Your task to perform on an android device: Search for "alienware aurora" on newegg.com, select the first entry, and add it to the cart. Image 0: 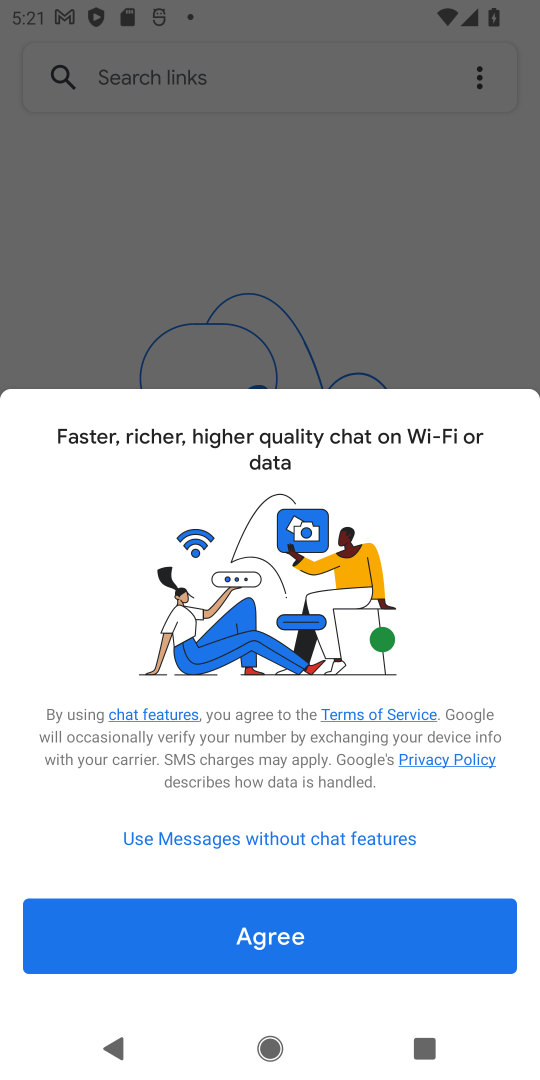
Step 0: press home button
Your task to perform on an android device: Search for "alienware aurora" on newegg.com, select the first entry, and add it to the cart. Image 1: 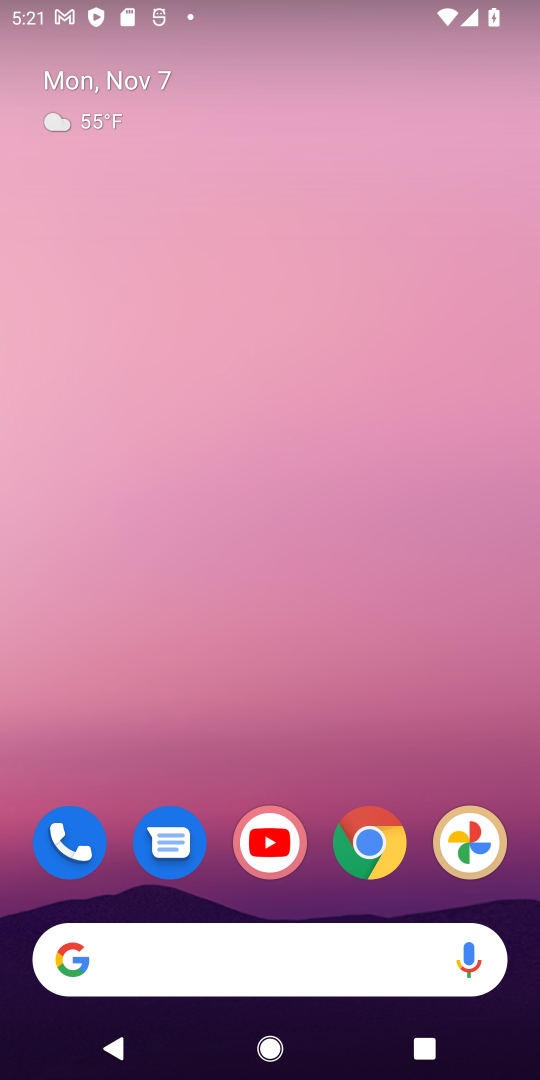
Step 1: click (355, 836)
Your task to perform on an android device: Search for "alienware aurora" on newegg.com, select the first entry, and add it to the cart. Image 2: 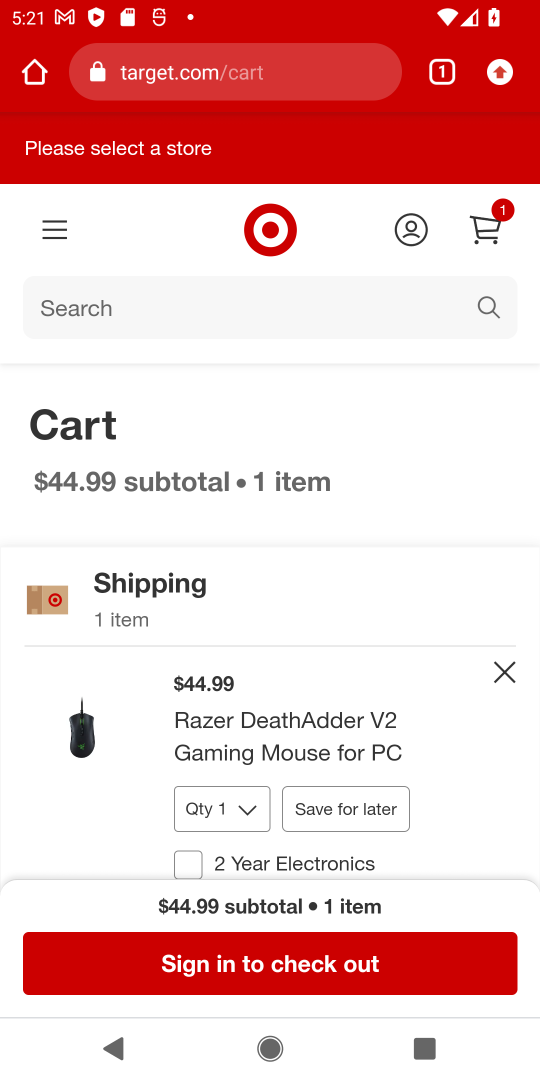
Step 2: click (253, 64)
Your task to perform on an android device: Search for "alienware aurora" on newegg.com, select the first entry, and add it to the cart. Image 3: 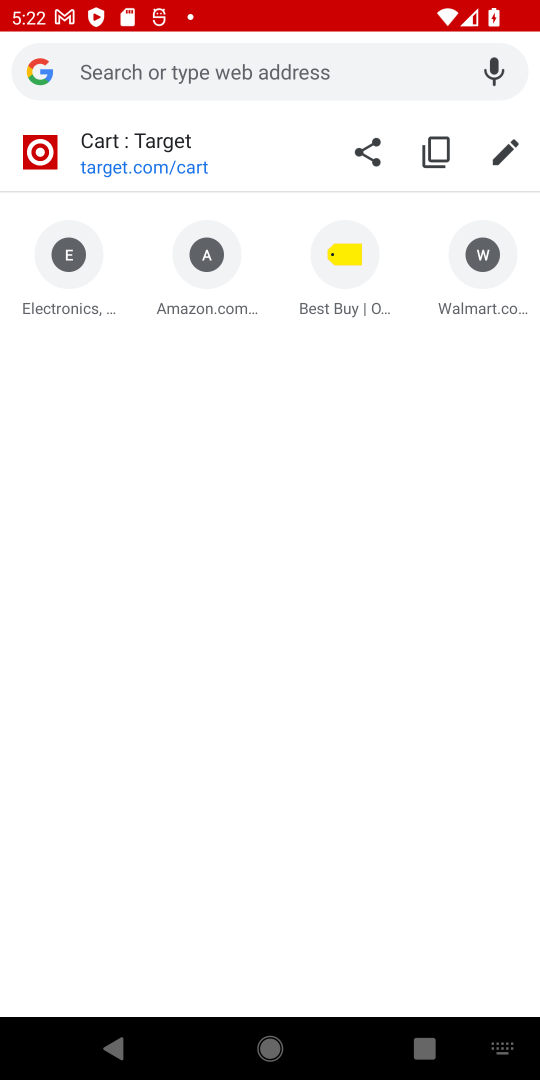
Step 3: type " newegg.com"
Your task to perform on an android device: Search for "alienware aurora" on newegg.com, select the first entry, and add it to the cart. Image 4: 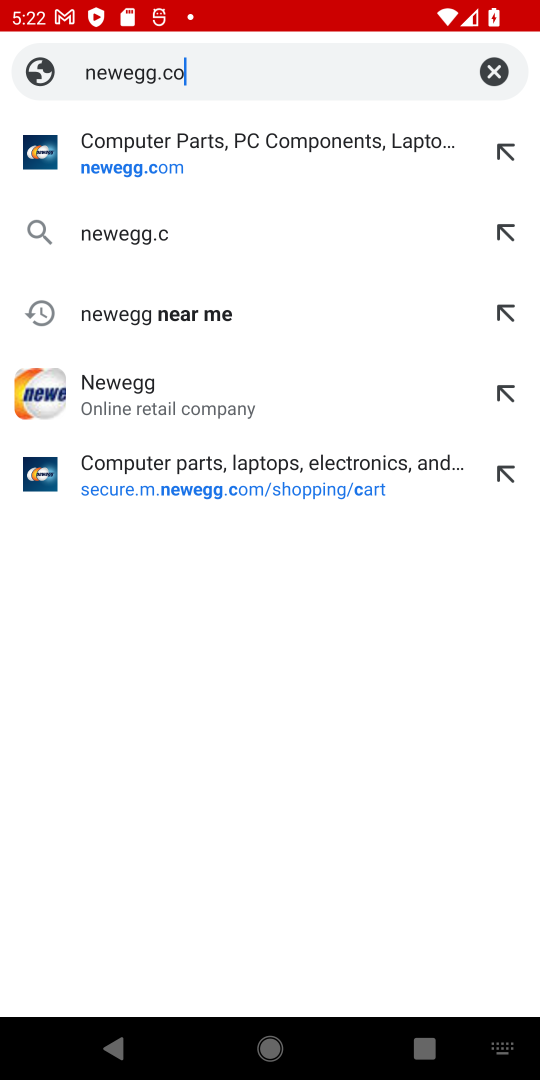
Step 4: press enter
Your task to perform on an android device: Search for "alienware aurora" on newegg.com, select the first entry, and add it to the cart. Image 5: 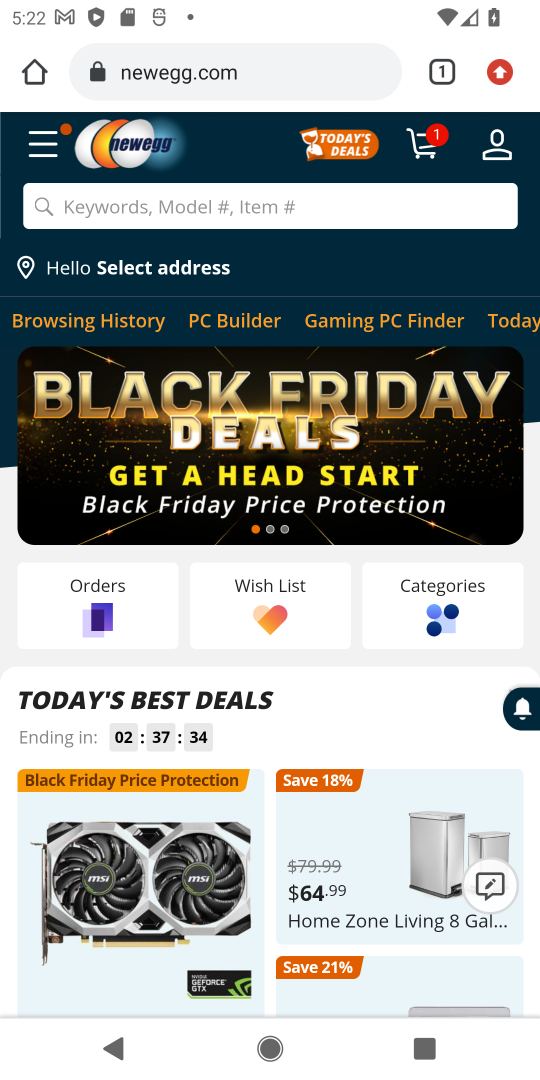
Step 5: click (174, 189)
Your task to perform on an android device: Search for "alienware aurora" on newegg.com, select the first entry, and add it to the cart. Image 6: 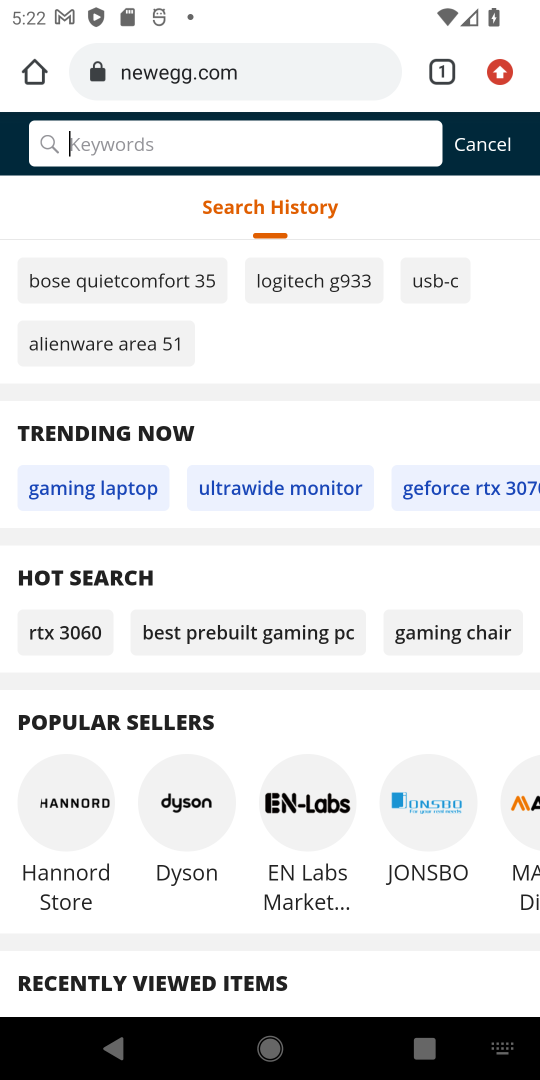
Step 6: type "alienware aurora"
Your task to perform on an android device: Search for "alienware aurora" on newegg.com, select the first entry, and add it to the cart. Image 7: 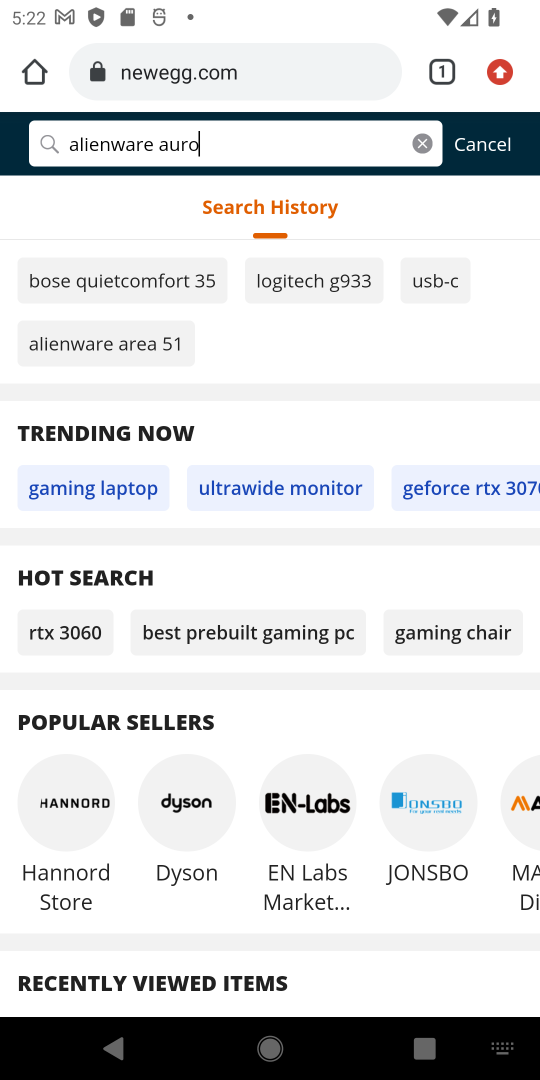
Step 7: press enter
Your task to perform on an android device: Search for "alienware aurora" on newegg.com, select the first entry, and add it to the cart. Image 8: 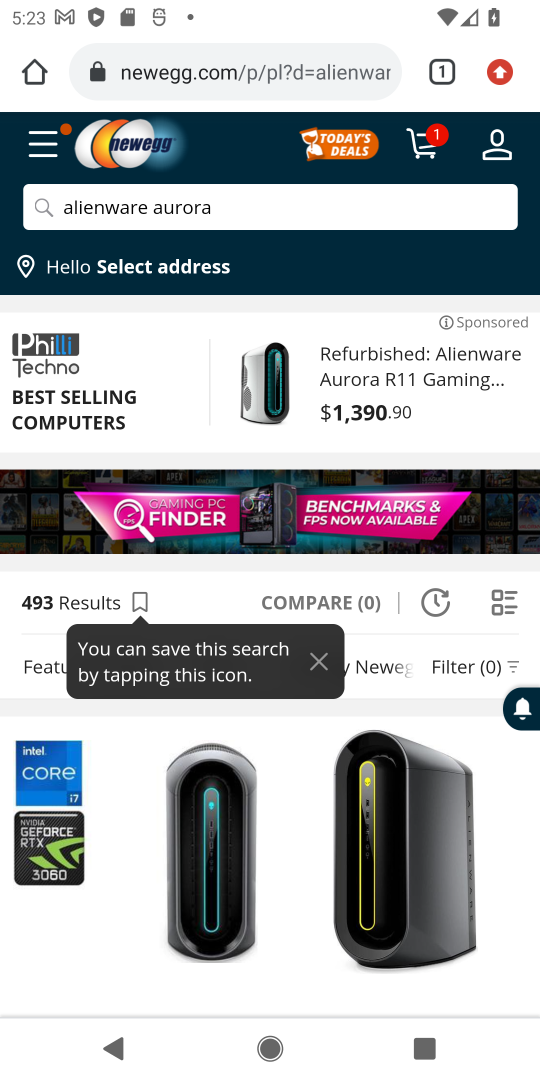
Step 8: drag from (302, 941) to (522, 352)
Your task to perform on an android device: Search for "alienware aurora" on newegg.com, select the first entry, and add it to the cart. Image 9: 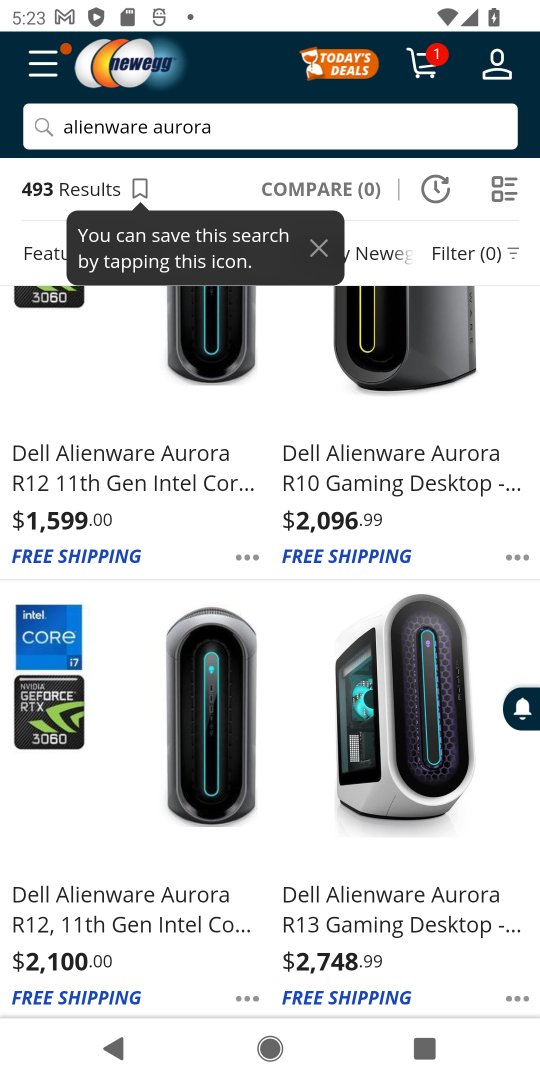
Step 9: click (121, 458)
Your task to perform on an android device: Search for "alienware aurora" on newegg.com, select the first entry, and add it to the cart. Image 10: 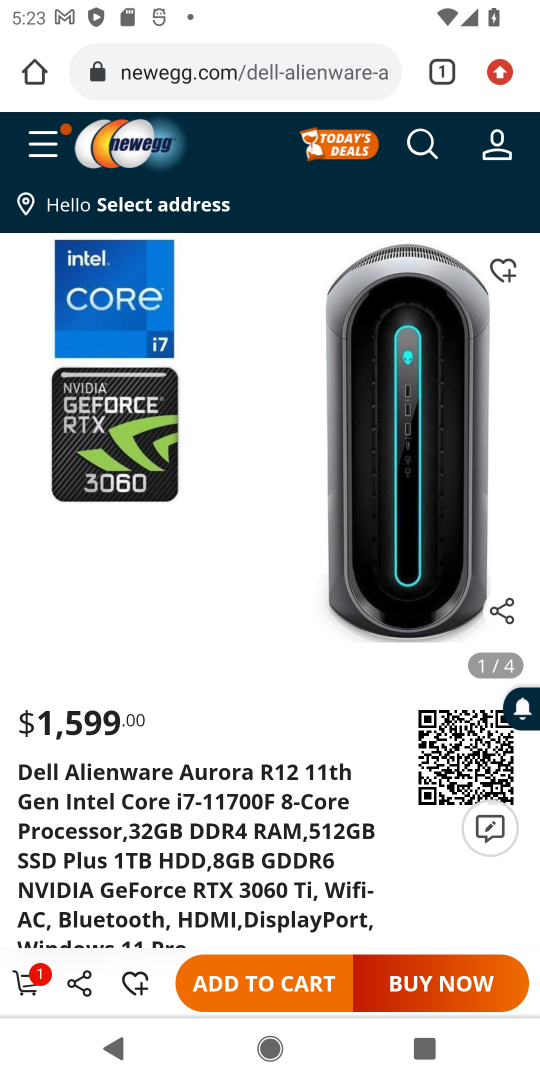
Step 10: click (256, 990)
Your task to perform on an android device: Search for "alienware aurora" on newegg.com, select the first entry, and add it to the cart. Image 11: 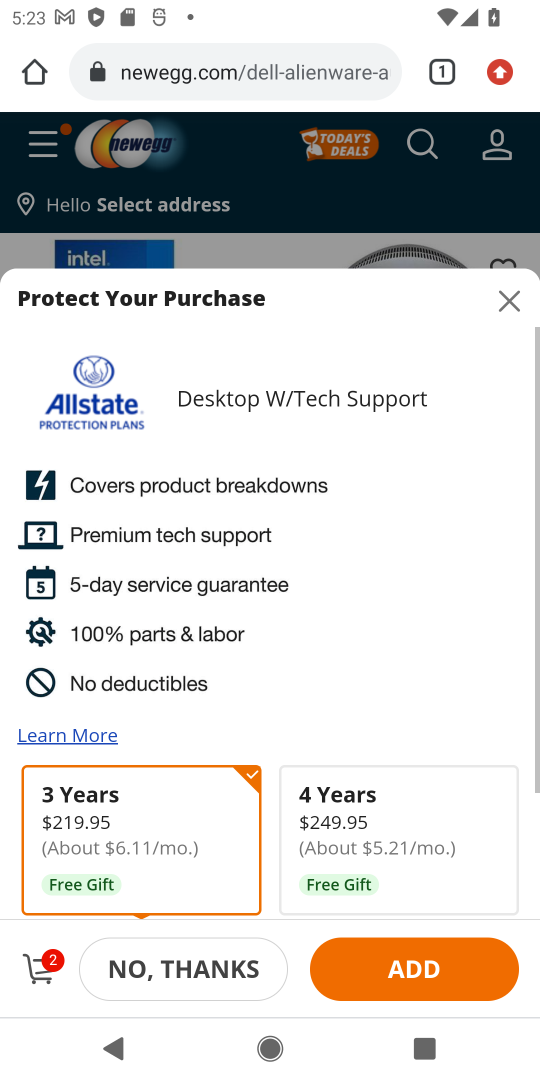
Step 11: click (155, 975)
Your task to perform on an android device: Search for "alienware aurora" on newegg.com, select the first entry, and add it to the cart. Image 12: 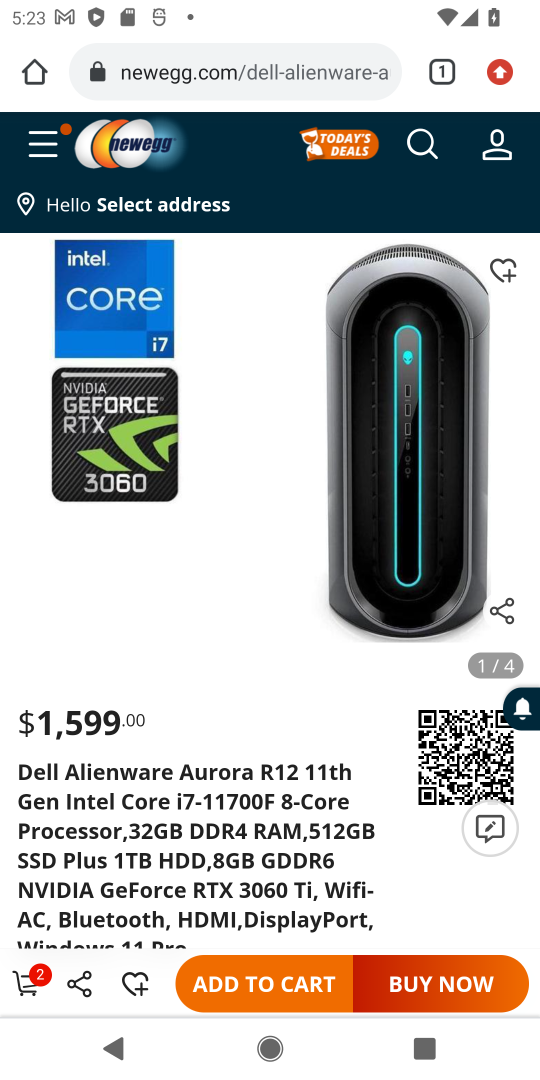
Step 12: click (26, 981)
Your task to perform on an android device: Search for "alienware aurora" on newegg.com, select the first entry, and add it to the cart. Image 13: 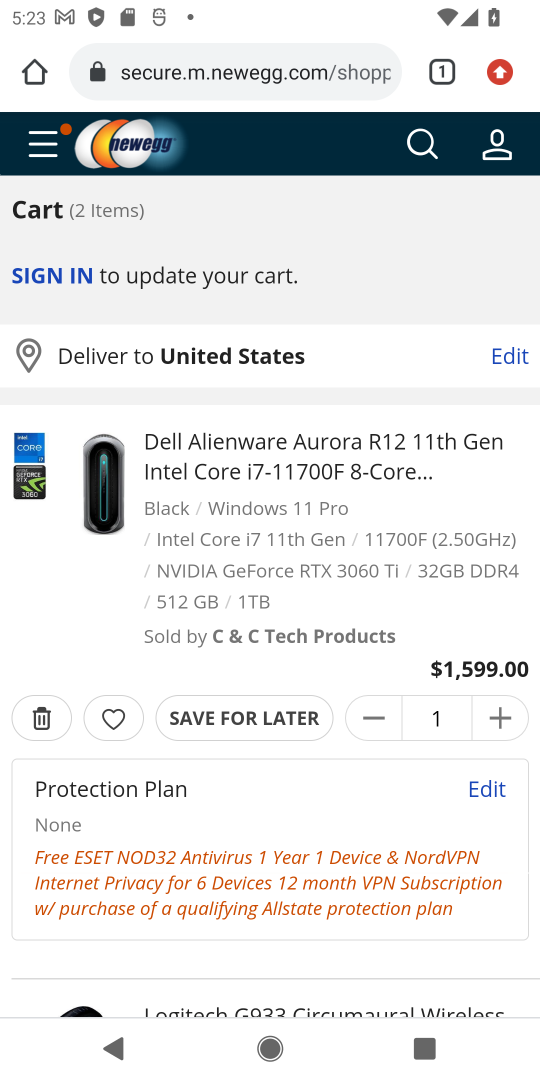
Step 13: drag from (167, 766) to (521, 227)
Your task to perform on an android device: Search for "alienware aurora" on newegg.com, select the first entry, and add it to the cart. Image 14: 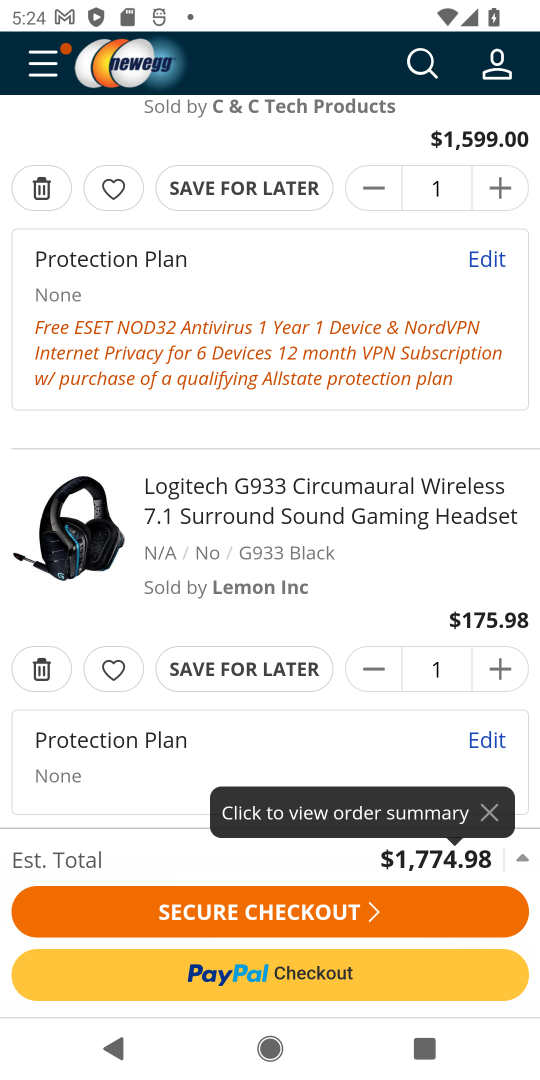
Step 14: click (42, 667)
Your task to perform on an android device: Search for "alienware aurora" on newegg.com, select the first entry, and add it to the cart. Image 15: 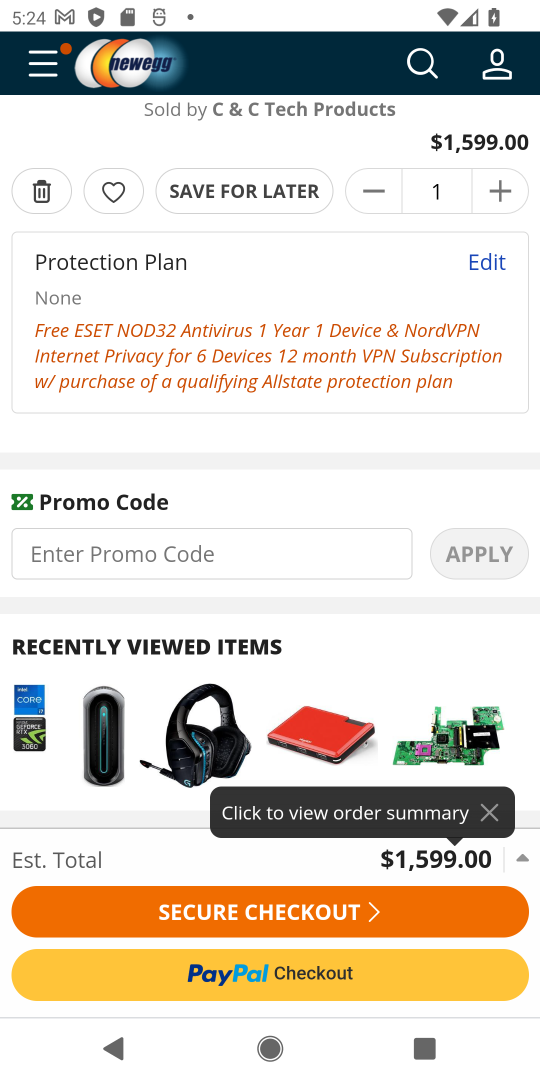
Step 15: task complete